Your task to perform on an android device: Is it going to rain today? Image 0: 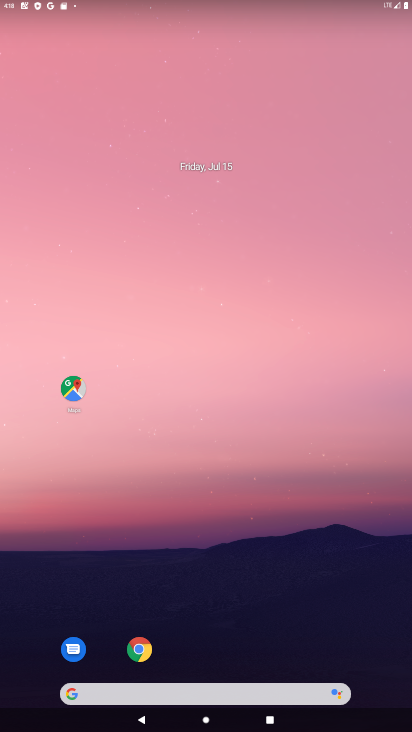
Step 0: drag from (202, 651) to (189, 315)
Your task to perform on an android device: Is it going to rain today? Image 1: 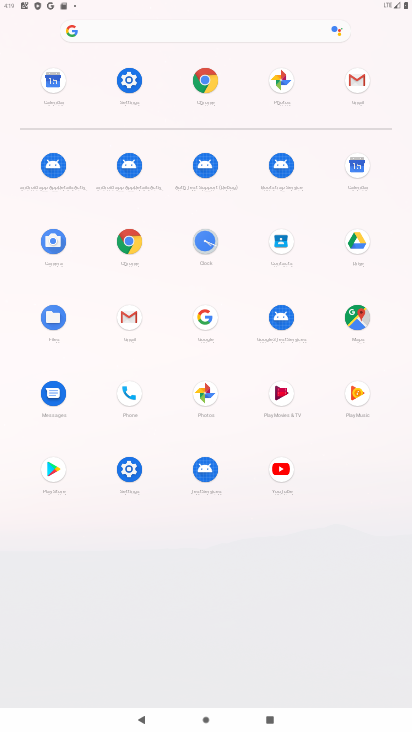
Step 1: click (195, 334)
Your task to perform on an android device: Is it going to rain today? Image 2: 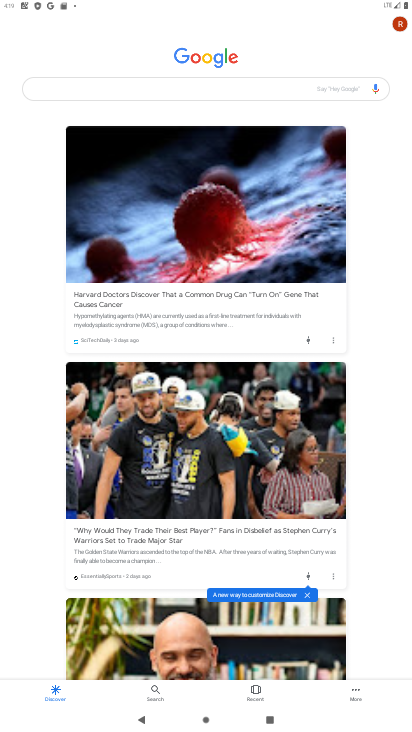
Step 2: click (73, 90)
Your task to perform on an android device: Is it going to rain today? Image 3: 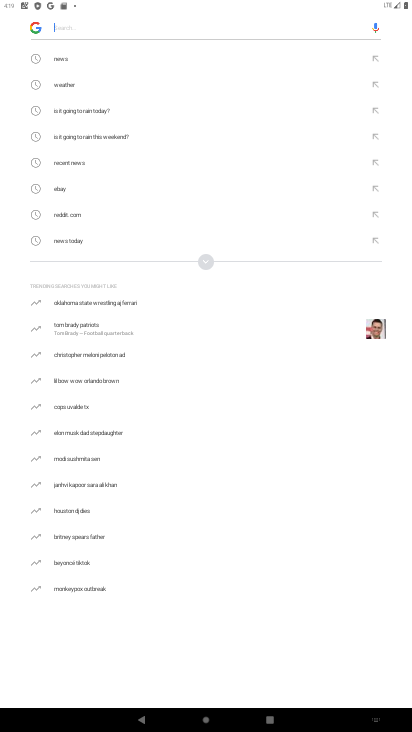
Step 3: click (59, 82)
Your task to perform on an android device: Is it going to rain today? Image 4: 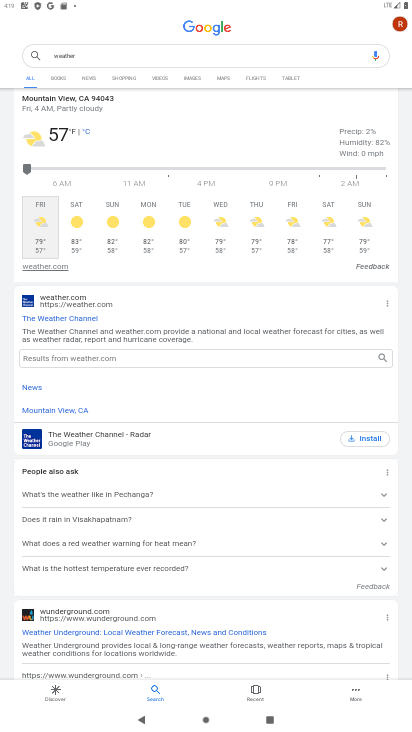
Step 4: task complete